Your task to perform on an android device: Open Google Maps and go to "Timeline" Image 0: 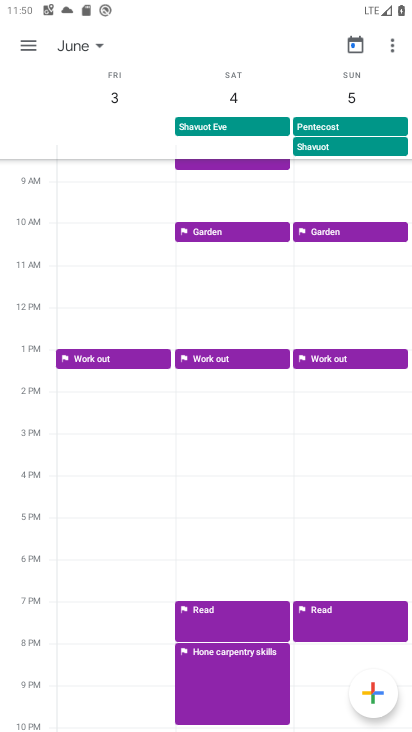
Step 0: press home button
Your task to perform on an android device: Open Google Maps and go to "Timeline" Image 1: 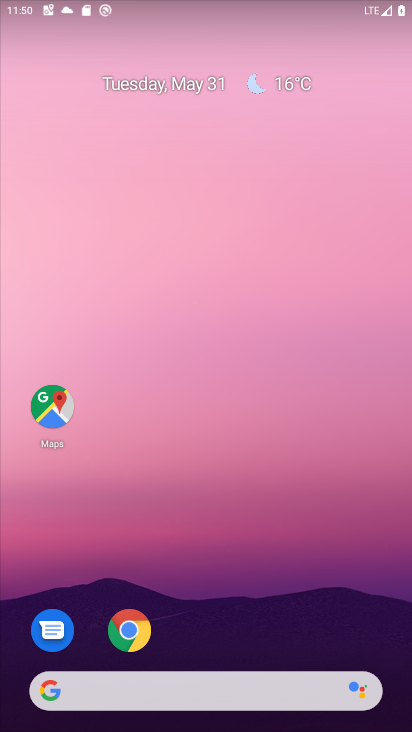
Step 1: click (43, 409)
Your task to perform on an android device: Open Google Maps and go to "Timeline" Image 2: 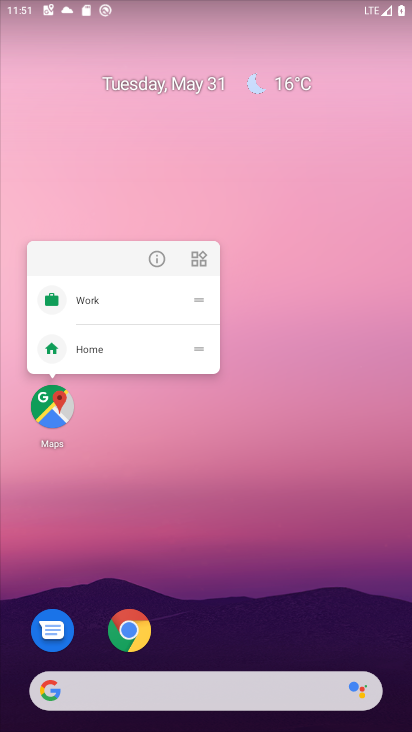
Step 2: click (46, 410)
Your task to perform on an android device: Open Google Maps and go to "Timeline" Image 3: 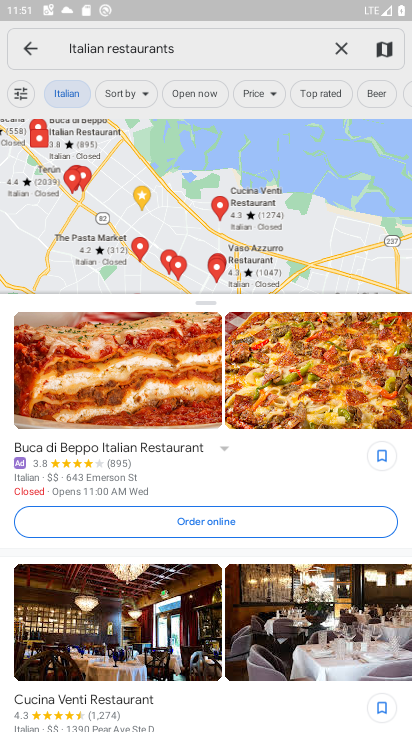
Step 3: click (35, 40)
Your task to perform on an android device: Open Google Maps and go to "Timeline" Image 4: 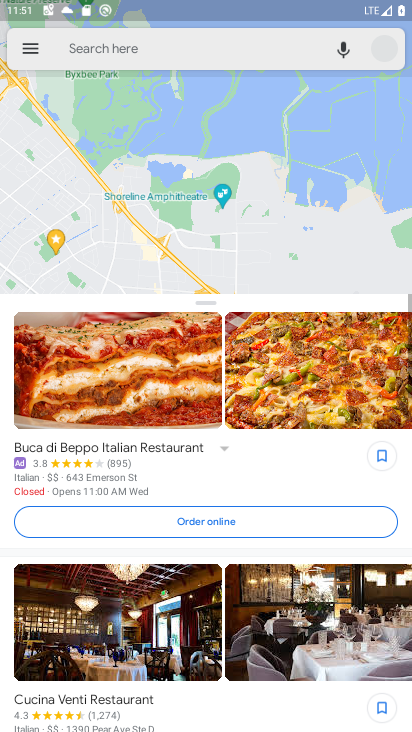
Step 4: click (35, 40)
Your task to perform on an android device: Open Google Maps and go to "Timeline" Image 5: 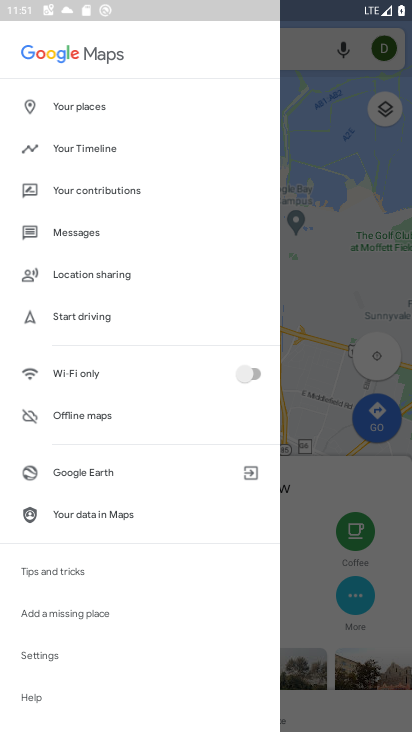
Step 5: click (105, 153)
Your task to perform on an android device: Open Google Maps and go to "Timeline" Image 6: 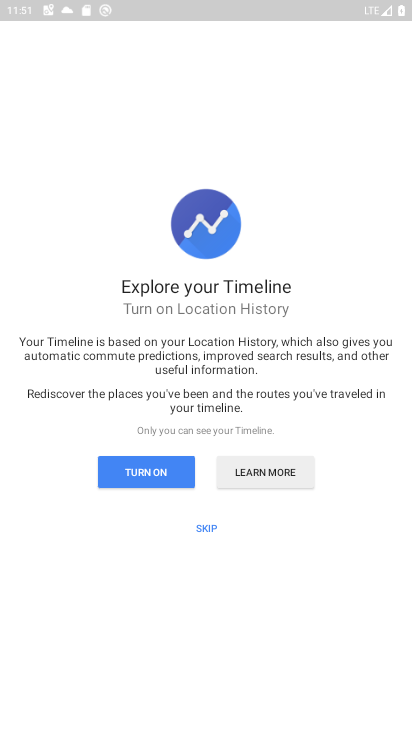
Step 6: click (110, 476)
Your task to perform on an android device: Open Google Maps and go to "Timeline" Image 7: 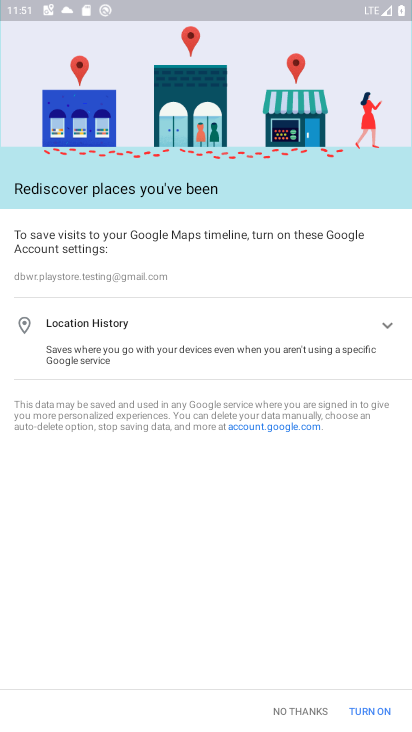
Step 7: click (371, 707)
Your task to perform on an android device: Open Google Maps and go to "Timeline" Image 8: 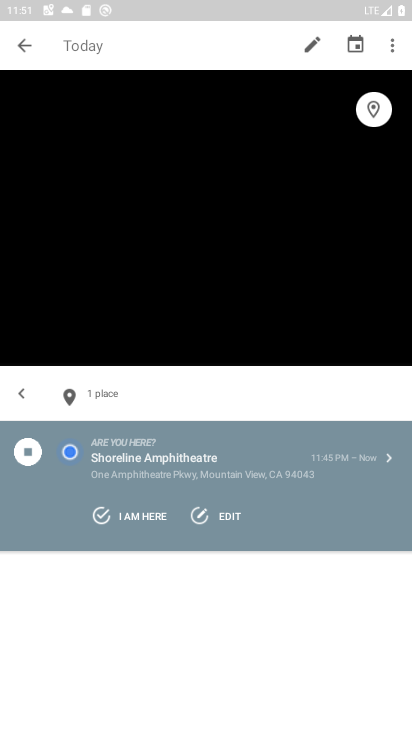
Step 8: task complete